Your task to perform on an android device: clear all cookies in the chrome app Image 0: 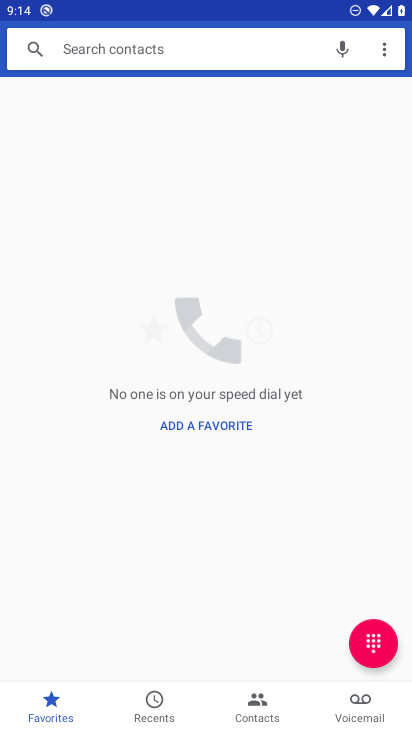
Step 0: press home button
Your task to perform on an android device: clear all cookies in the chrome app Image 1: 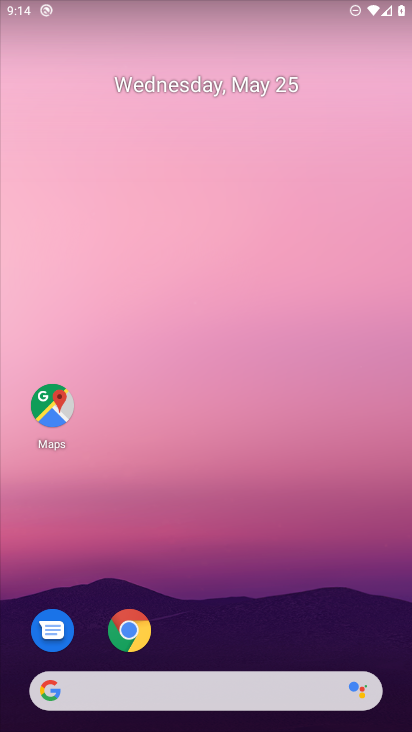
Step 1: click (136, 633)
Your task to perform on an android device: clear all cookies in the chrome app Image 2: 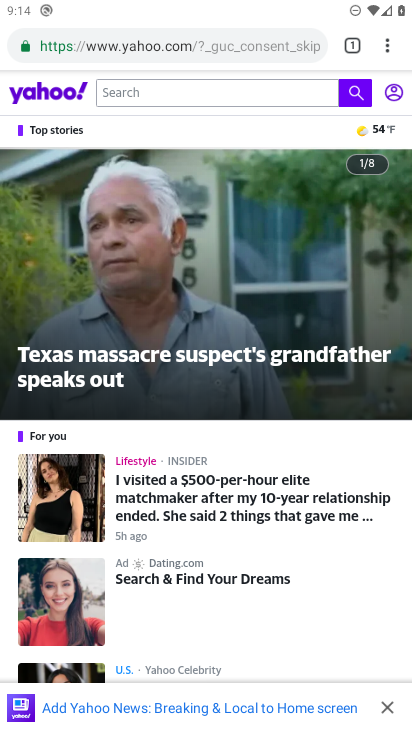
Step 2: click (393, 47)
Your task to perform on an android device: clear all cookies in the chrome app Image 3: 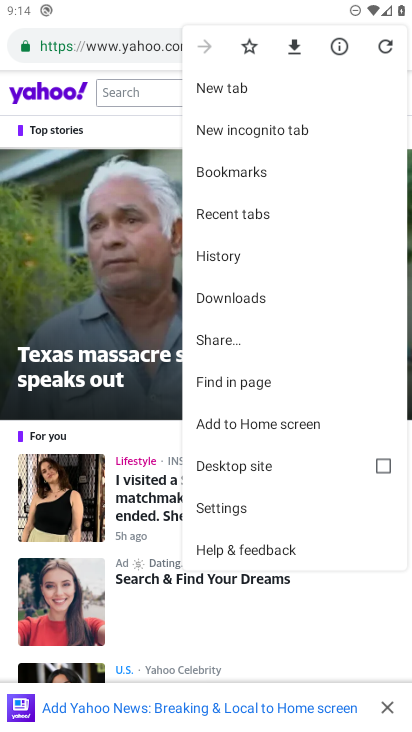
Step 3: click (246, 511)
Your task to perform on an android device: clear all cookies in the chrome app Image 4: 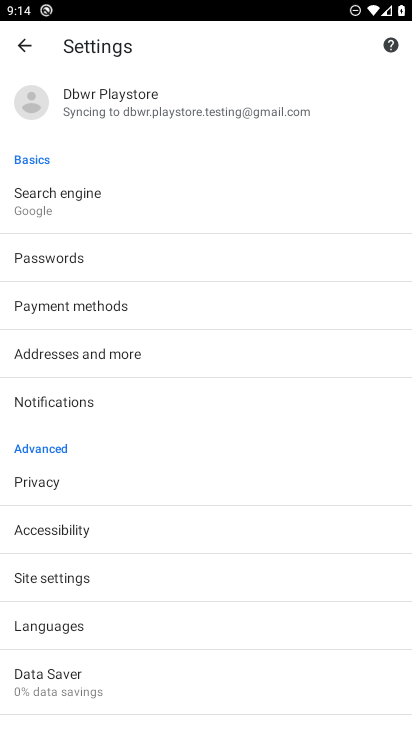
Step 4: click (37, 481)
Your task to perform on an android device: clear all cookies in the chrome app Image 5: 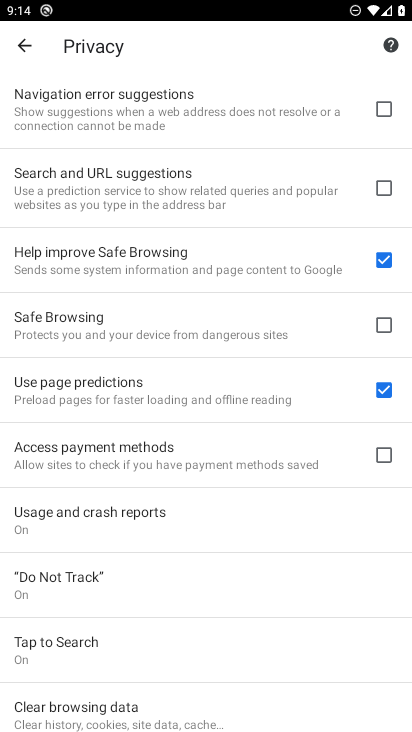
Step 5: drag from (151, 674) to (169, 290)
Your task to perform on an android device: clear all cookies in the chrome app Image 6: 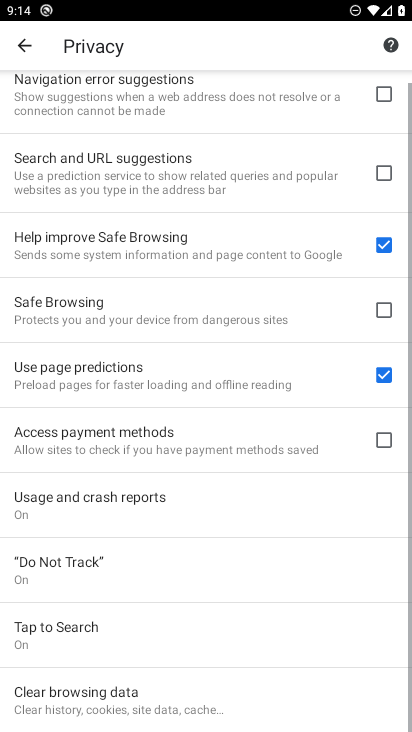
Step 6: click (101, 712)
Your task to perform on an android device: clear all cookies in the chrome app Image 7: 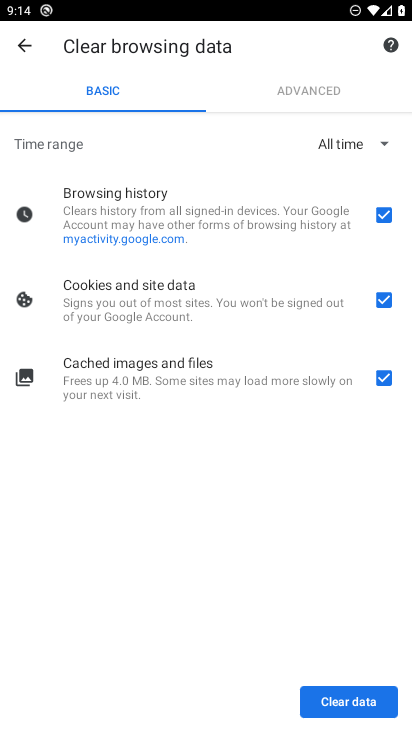
Step 7: click (382, 381)
Your task to perform on an android device: clear all cookies in the chrome app Image 8: 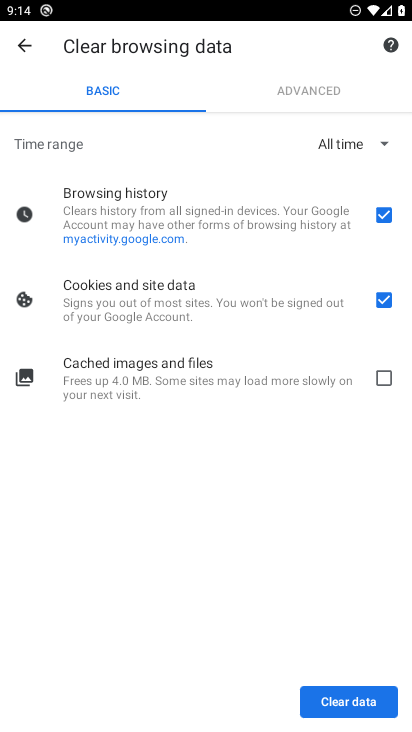
Step 8: click (388, 215)
Your task to perform on an android device: clear all cookies in the chrome app Image 9: 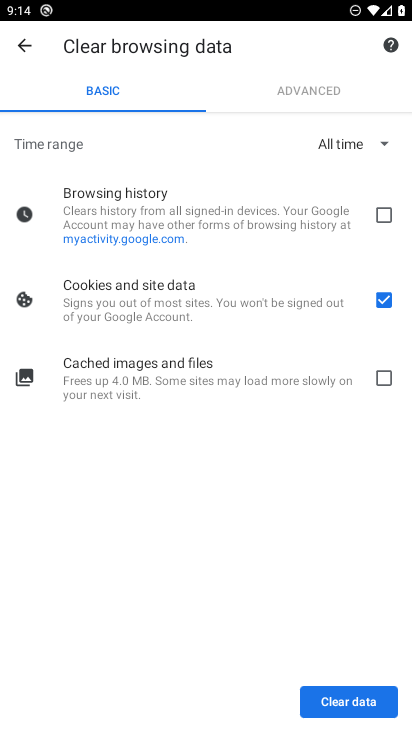
Step 9: click (350, 705)
Your task to perform on an android device: clear all cookies in the chrome app Image 10: 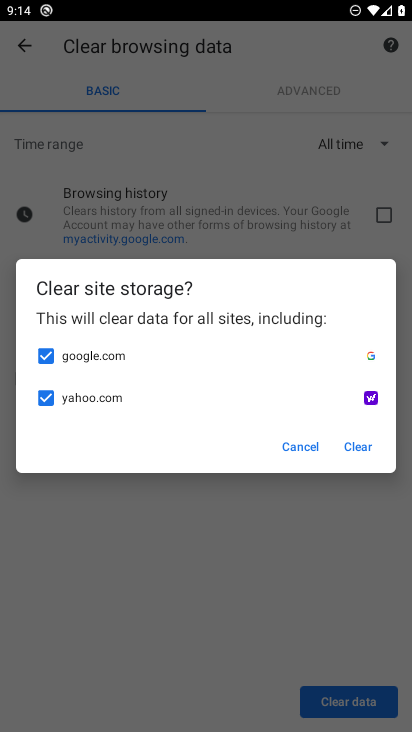
Step 10: click (361, 450)
Your task to perform on an android device: clear all cookies in the chrome app Image 11: 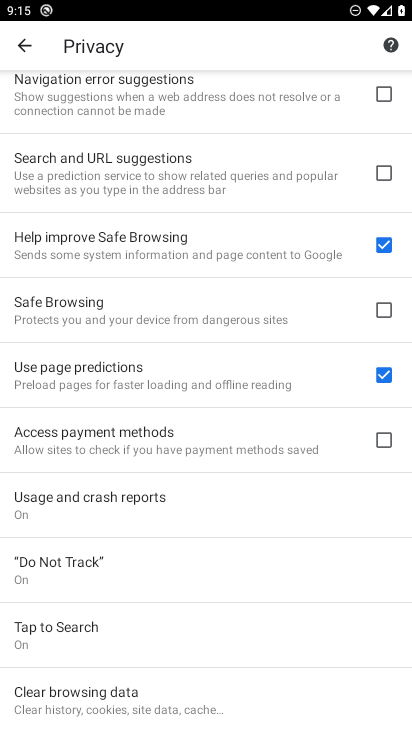
Step 11: task complete